Your task to perform on an android device: turn on airplane mode Image 0: 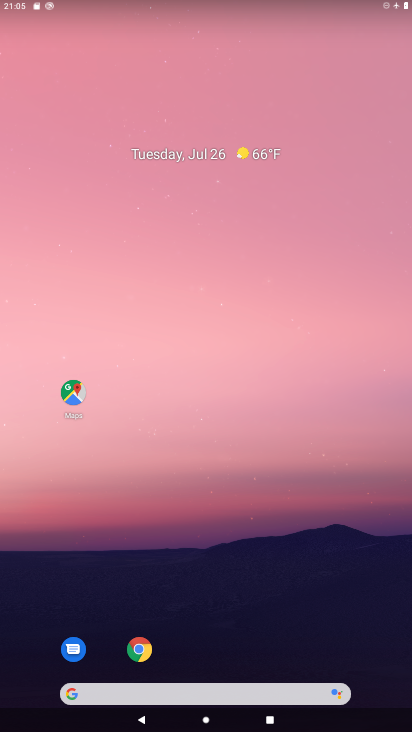
Step 0: drag from (185, 667) to (275, 113)
Your task to perform on an android device: turn on airplane mode Image 1: 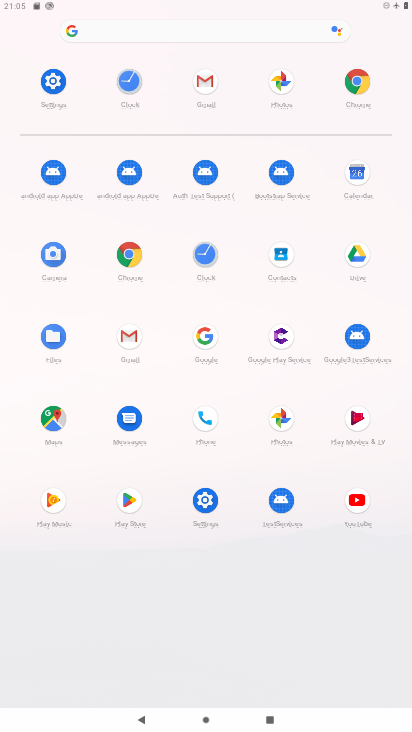
Step 1: click (63, 75)
Your task to perform on an android device: turn on airplane mode Image 2: 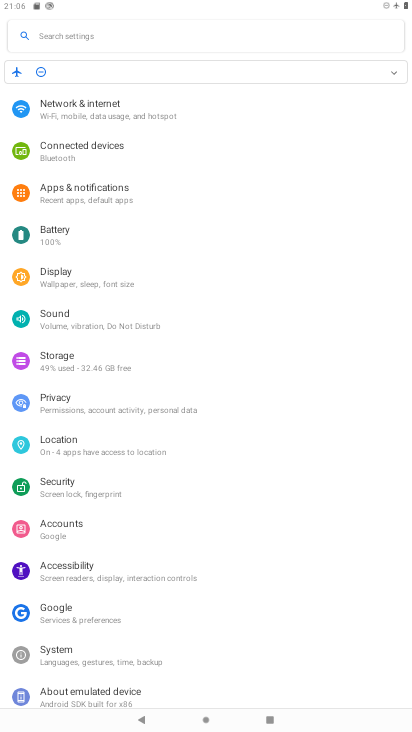
Step 2: click (190, 117)
Your task to perform on an android device: turn on airplane mode Image 3: 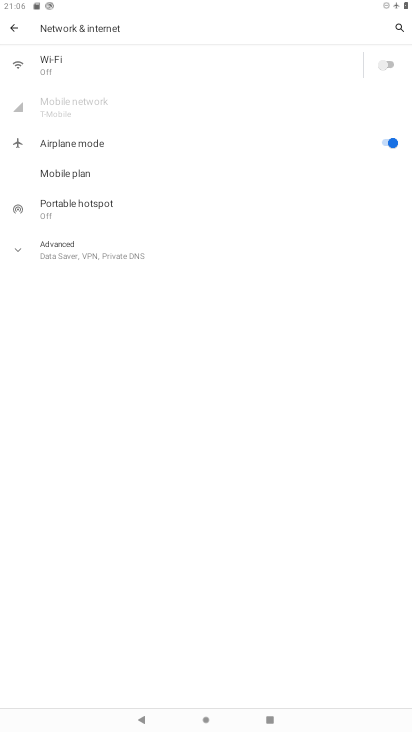
Step 3: task complete